Your task to perform on an android device: see sites visited before in the chrome app Image 0: 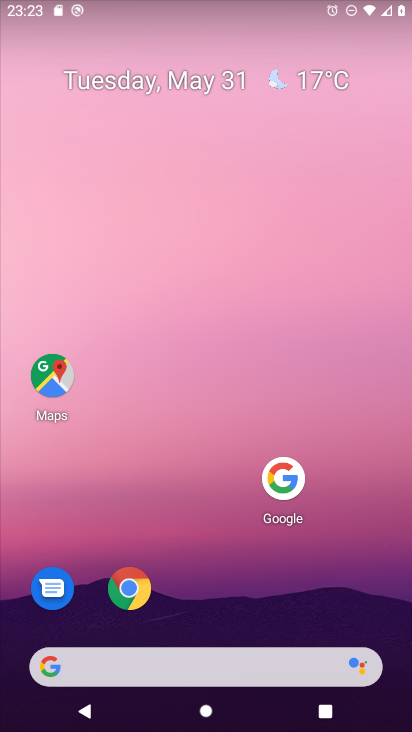
Step 0: press home button
Your task to perform on an android device: see sites visited before in the chrome app Image 1: 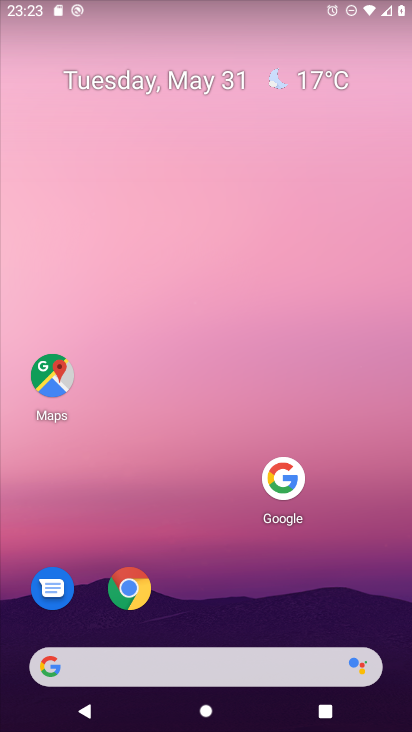
Step 1: click (134, 586)
Your task to perform on an android device: see sites visited before in the chrome app Image 2: 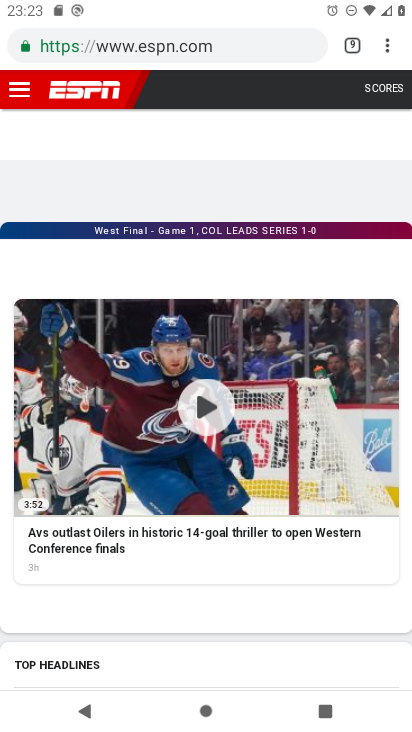
Step 2: task complete